Your task to perform on an android device: Is it going to rain tomorrow? Image 0: 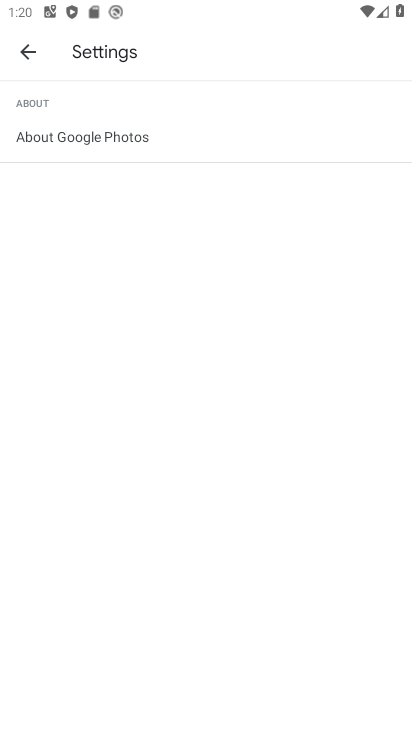
Step 0: press home button
Your task to perform on an android device: Is it going to rain tomorrow? Image 1: 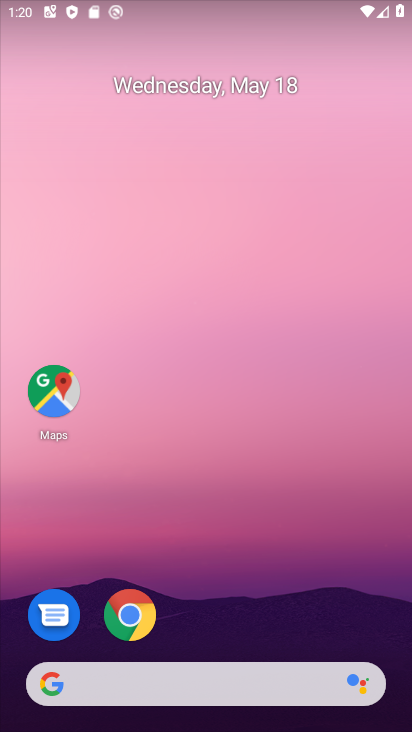
Step 1: drag from (365, 613) to (282, 58)
Your task to perform on an android device: Is it going to rain tomorrow? Image 2: 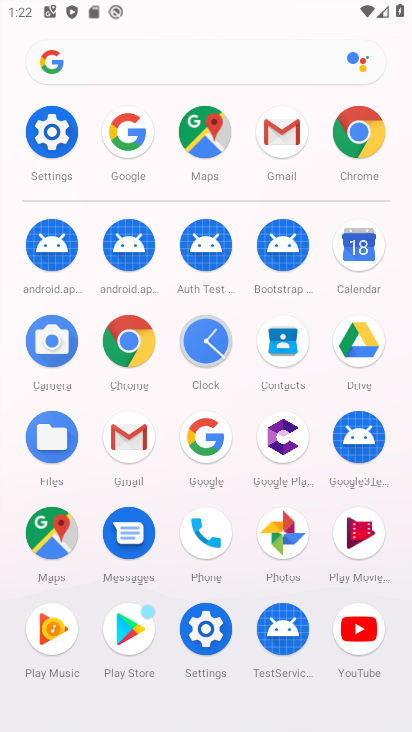
Step 2: click (214, 431)
Your task to perform on an android device: Is it going to rain tomorrow? Image 3: 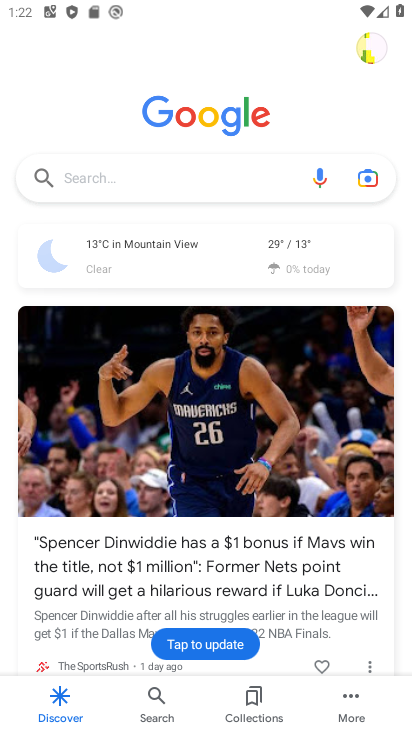
Step 3: click (124, 152)
Your task to perform on an android device: Is it going to rain tomorrow? Image 4: 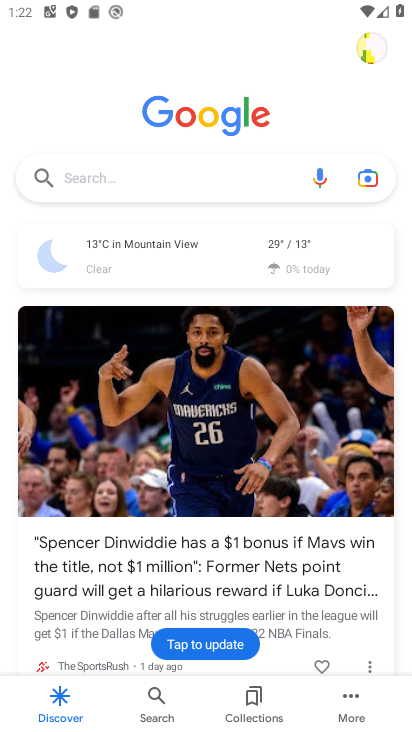
Step 4: click (113, 190)
Your task to perform on an android device: Is it going to rain tomorrow? Image 5: 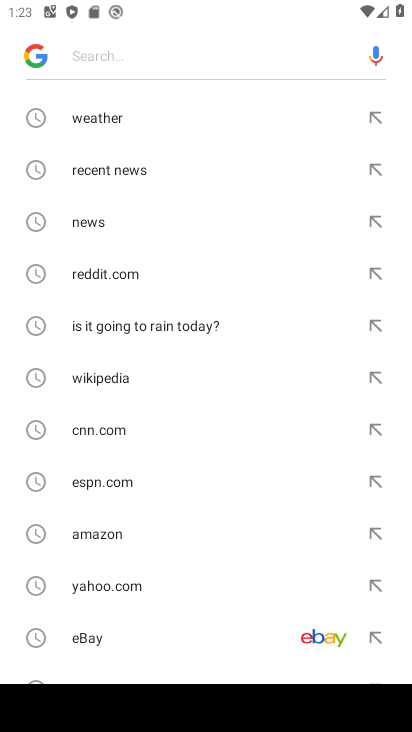
Step 5: drag from (169, 602) to (195, 226)
Your task to perform on an android device: Is it going to rain tomorrow? Image 6: 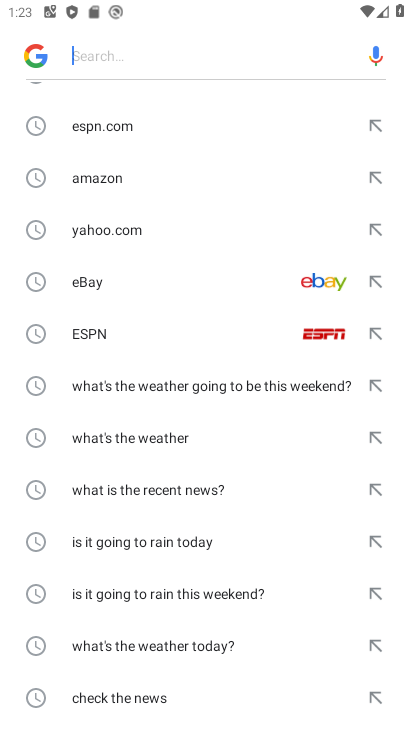
Step 6: drag from (246, 659) to (274, 315)
Your task to perform on an android device: Is it going to rain tomorrow? Image 7: 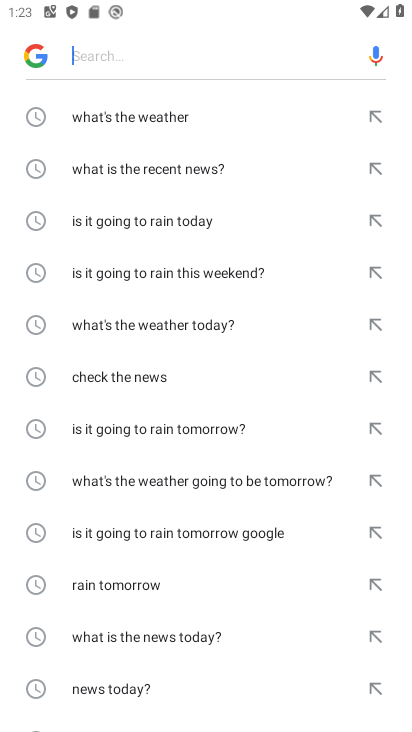
Step 7: click (228, 430)
Your task to perform on an android device: Is it going to rain tomorrow? Image 8: 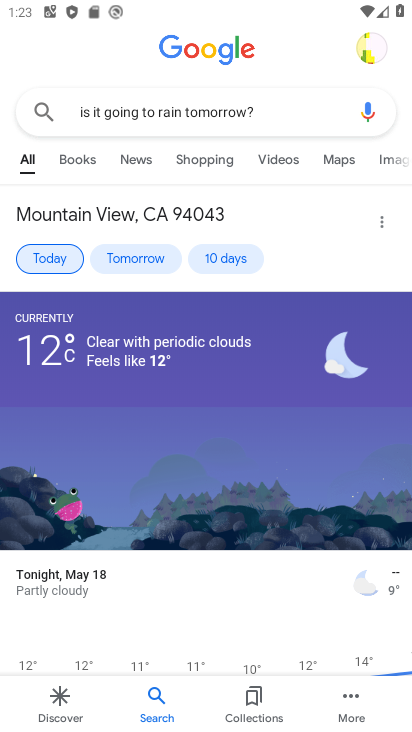
Step 8: task complete